Your task to perform on an android device: Toggle the flashlight Image 0: 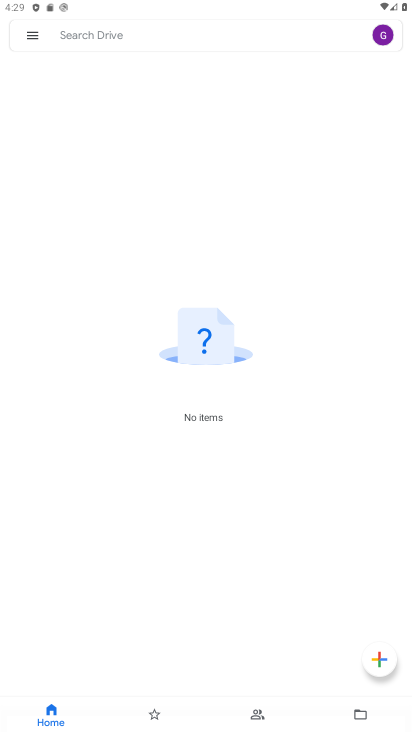
Step 0: press home button
Your task to perform on an android device: Toggle the flashlight Image 1: 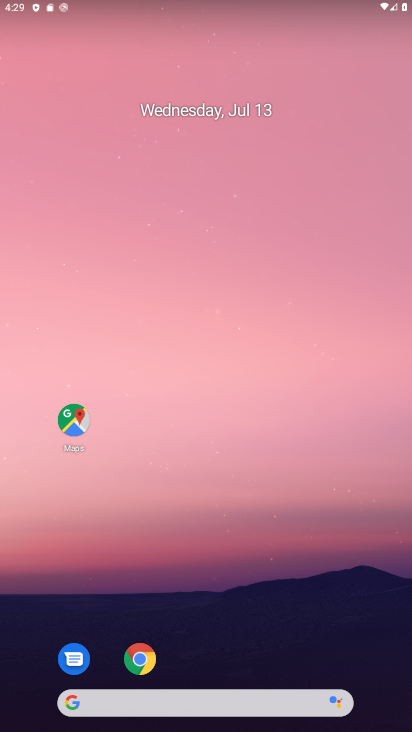
Step 1: drag from (321, 635) to (283, 123)
Your task to perform on an android device: Toggle the flashlight Image 2: 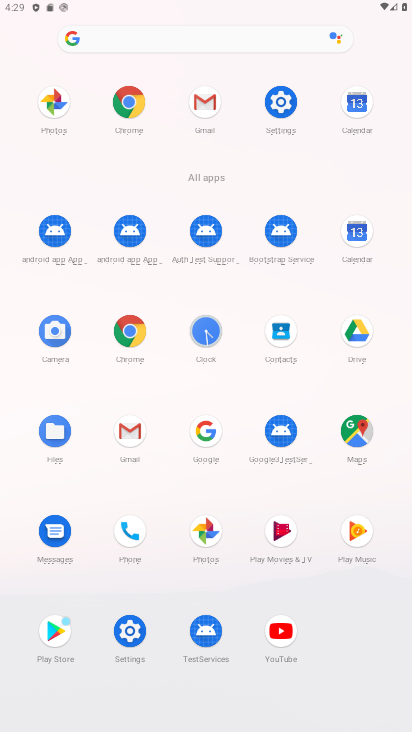
Step 2: click (283, 103)
Your task to perform on an android device: Toggle the flashlight Image 3: 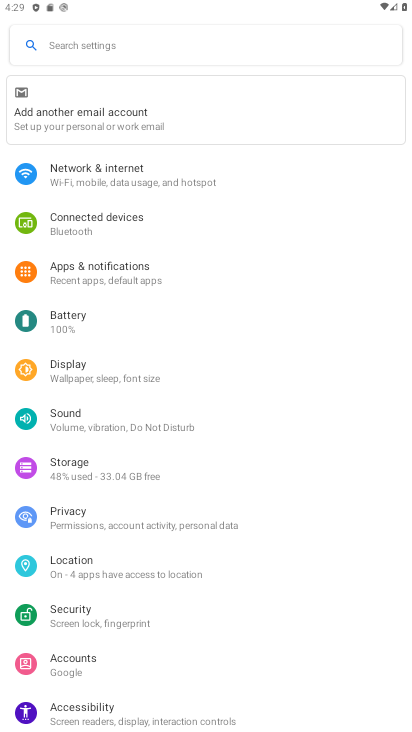
Step 3: click (67, 362)
Your task to perform on an android device: Toggle the flashlight Image 4: 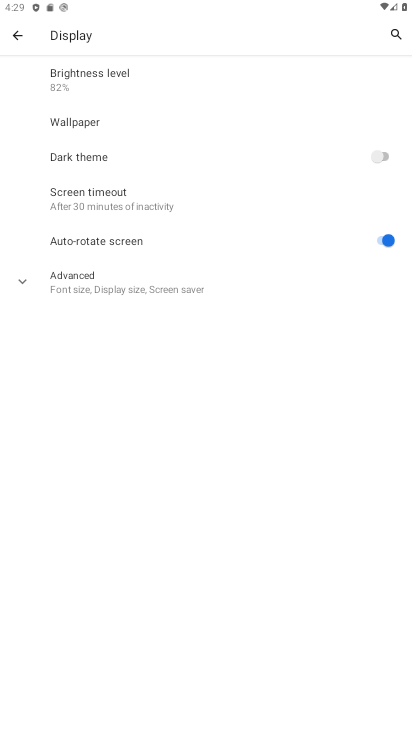
Step 4: click (103, 200)
Your task to perform on an android device: Toggle the flashlight Image 5: 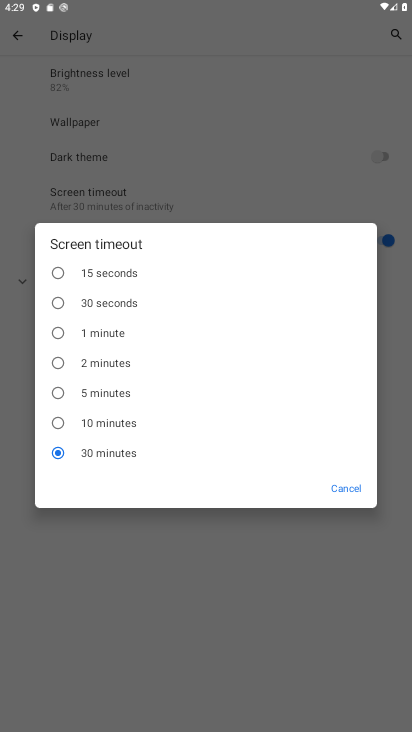
Step 5: task complete